Your task to perform on an android device: What's the weather today? Image 0: 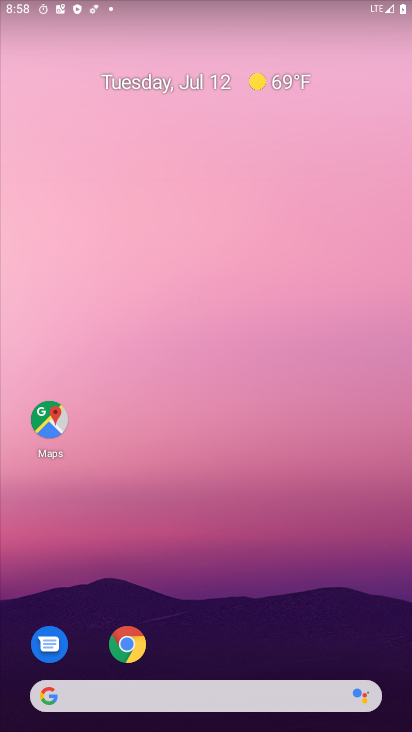
Step 0: drag from (250, 623) to (282, 92)
Your task to perform on an android device: What's the weather today? Image 1: 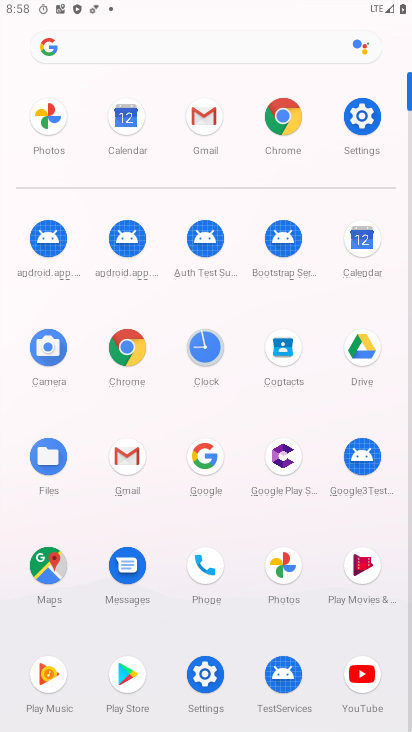
Step 1: click (105, 31)
Your task to perform on an android device: What's the weather today? Image 2: 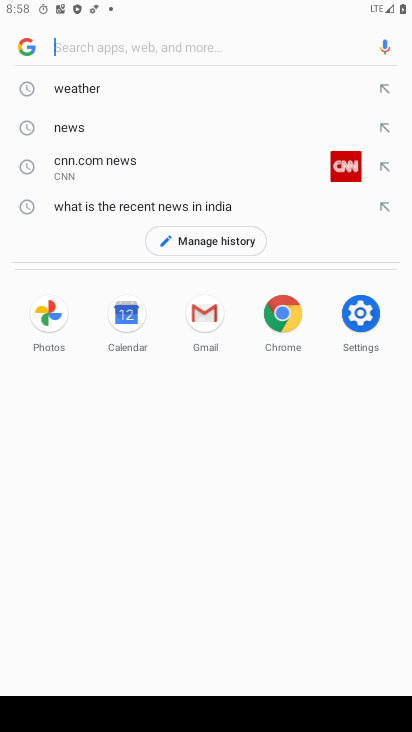
Step 2: click (80, 83)
Your task to perform on an android device: What's the weather today? Image 3: 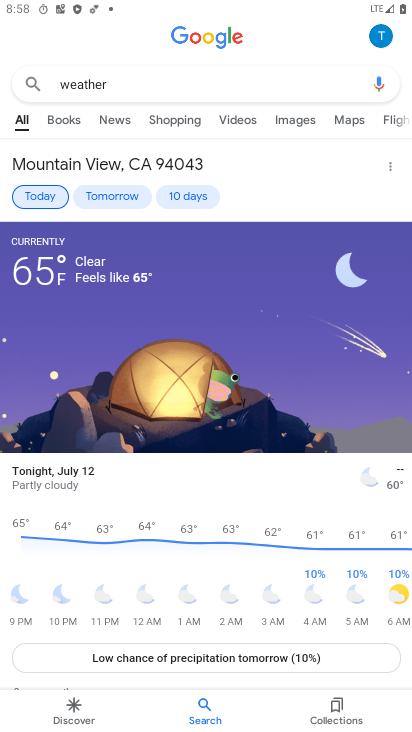
Step 3: task complete